Your task to perform on an android device: set default search engine in the chrome app Image 0: 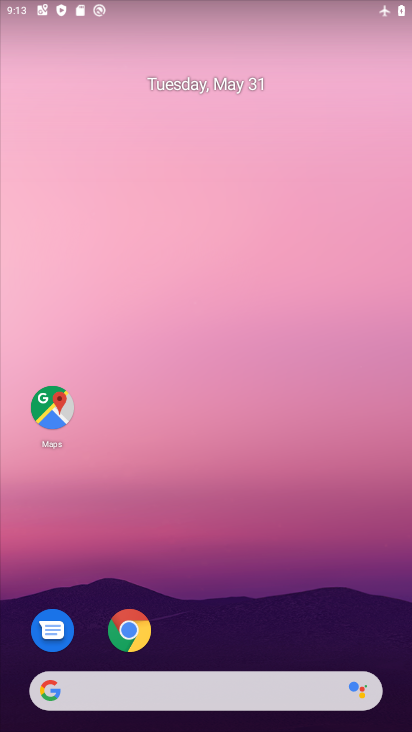
Step 0: drag from (184, 633) to (156, 189)
Your task to perform on an android device: set default search engine in the chrome app Image 1: 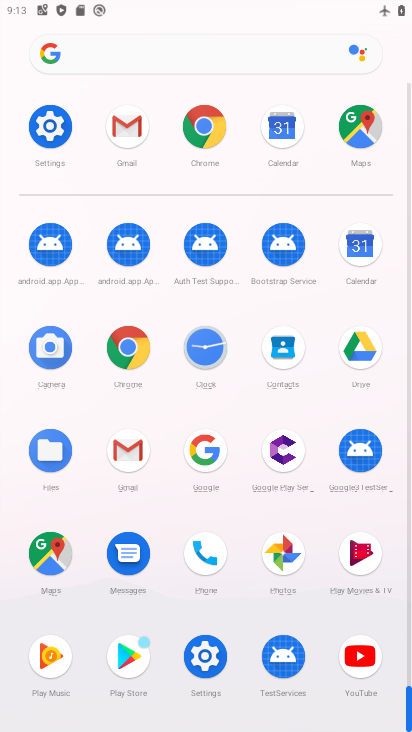
Step 1: click (123, 320)
Your task to perform on an android device: set default search engine in the chrome app Image 2: 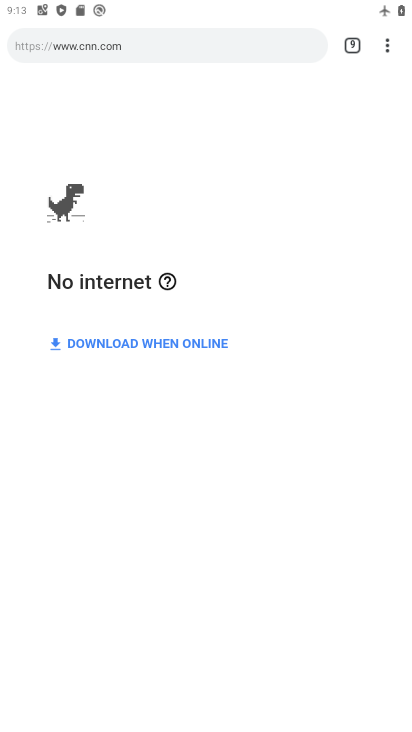
Step 2: click (392, 24)
Your task to perform on an android device: set default search engine in the chrome app Image 3: 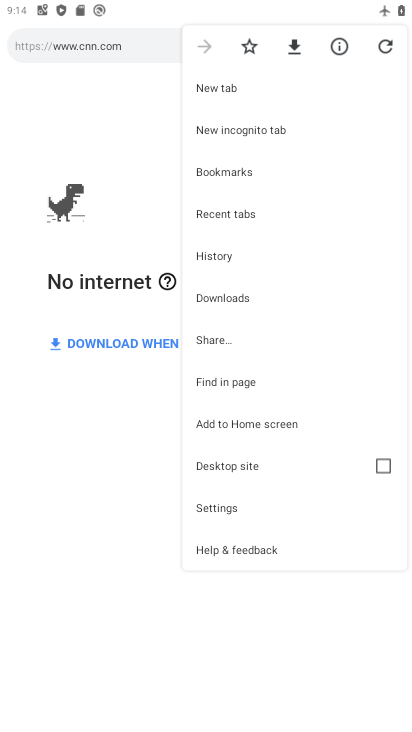
Step 3: click (241, 87)
Your task to perform on an android device: set default search engine in the chrome app Image 4: 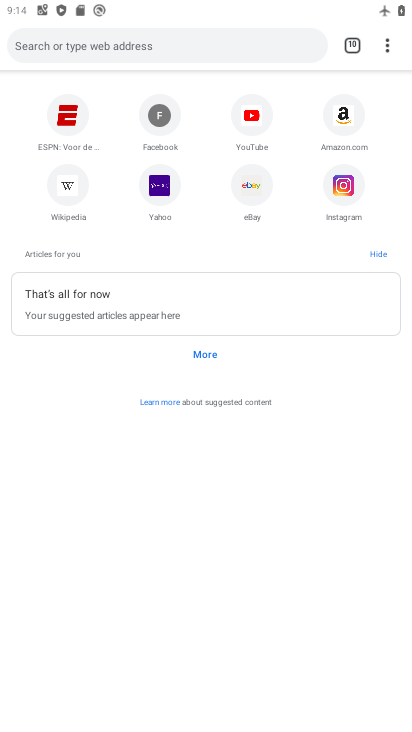
Step 4: click (391, 41)
Your task to perform on an android device: set default search engine in the chrome app Image 5: 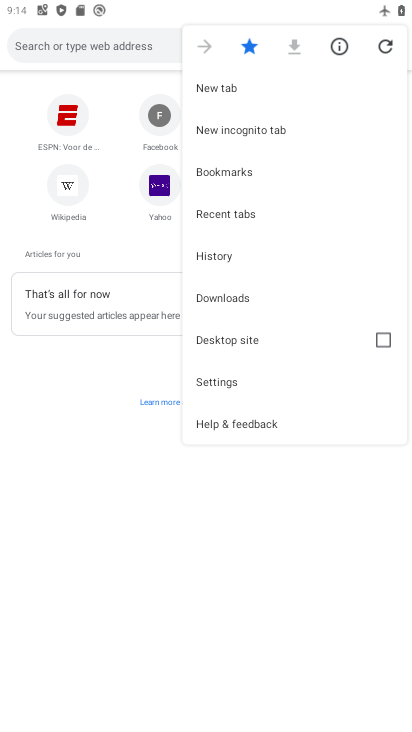
Step 5: click (237, 370)
Your task to perform on an android device: set default search engine in the chrome app Image 6: 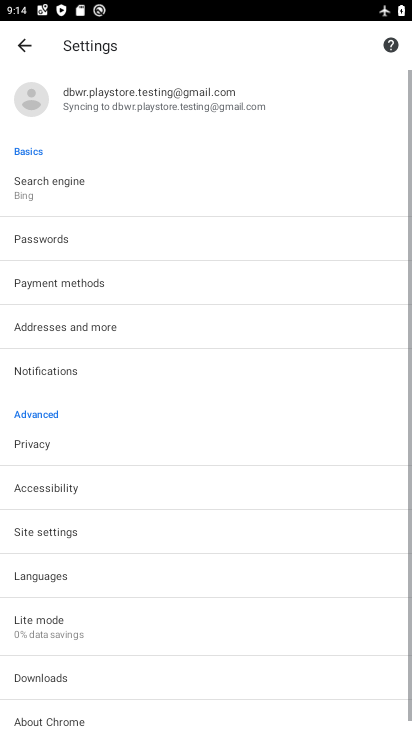
Step 6: click (61, 178)
Your task to perform on an android device: set default search engine in the chrome app Image 7: 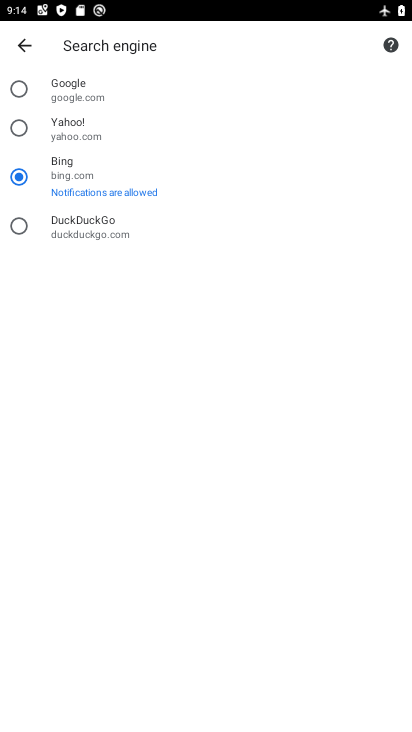
Step 7: click (70, 126)
Your task to perform on an android device: set default search engine in the chrome app Image 8: 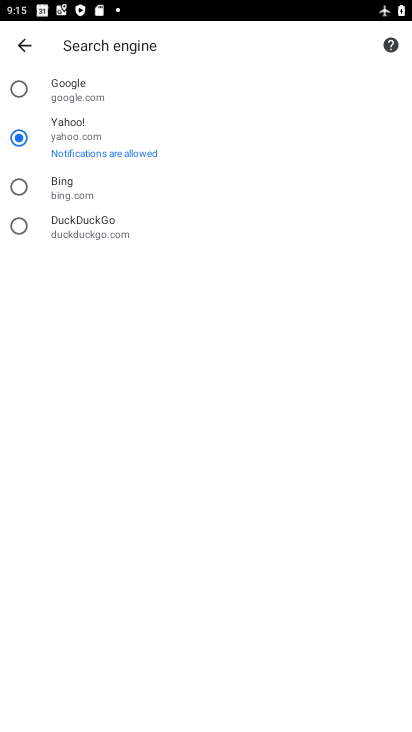
Step 8: task complete